Your task to perform on an android device: Open Amazon Image 0: 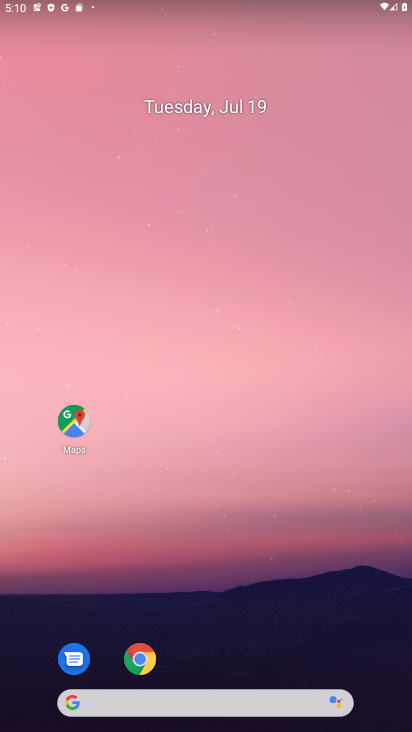
Step 0: drag from (199, 591) to (148, 118)
Your task to perform on an android device: Open Amazon Image 1: 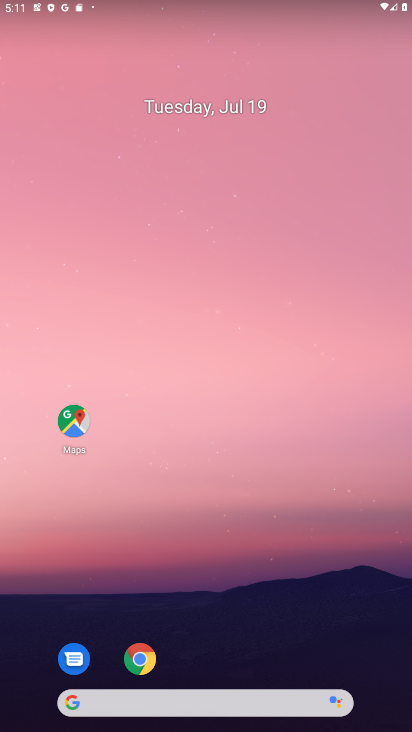
Step 1: drag from (180, 464) to (160, 24)
Your task to perform on an android device: Open Amazon Image 2: 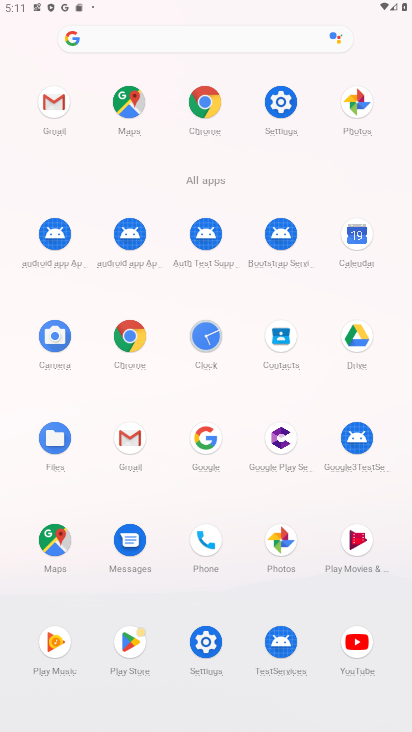
Step 2: click (184, 16)
Your task to perform on an android device: Open Amazon Image 3: 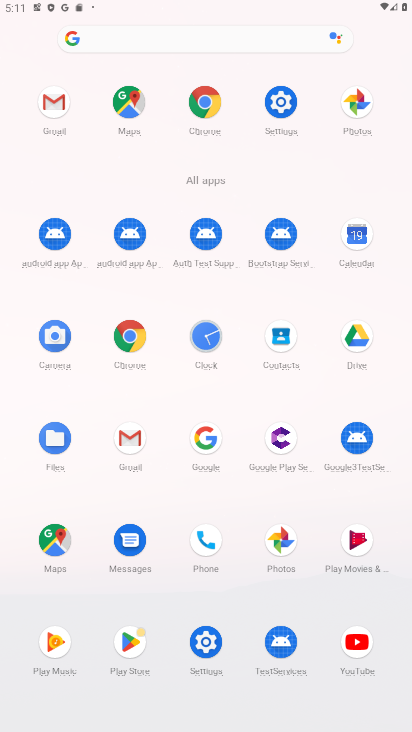
Step 3: drag from (200, 154) to (194, 101)
Your task to perform on an android device: Open Amazon Image 4: 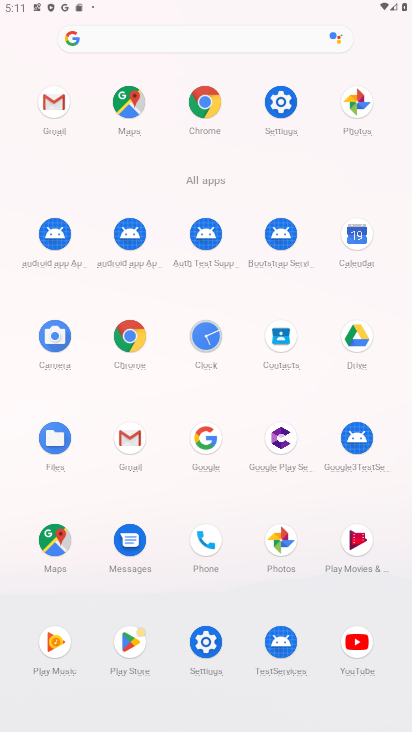
Step 4: click (197, 103)
Your task to perform on an android device: Open Amazon Image 5: 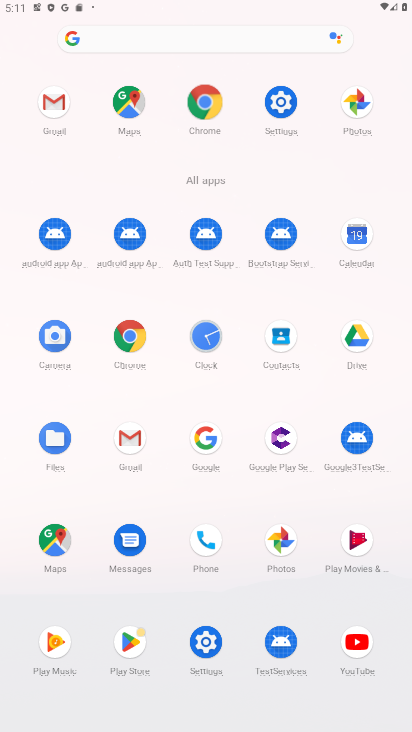
Step 5: click (200, 102)
Your task to perform on an android device: Open Amazon Image 6: 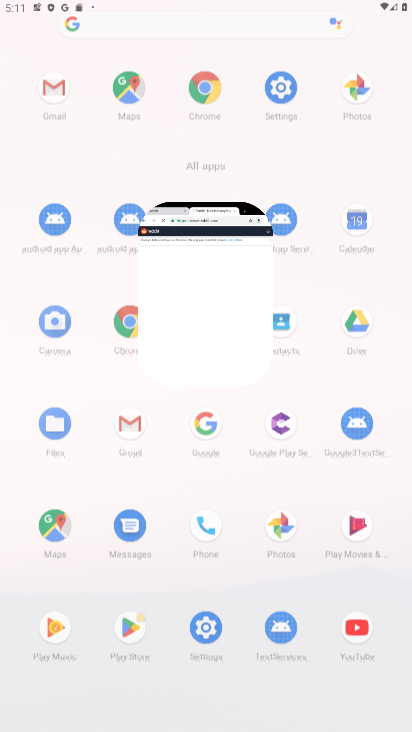
Step 6: click (200, 102)
Your task to perform on an android device: Open Amazon Image 7: 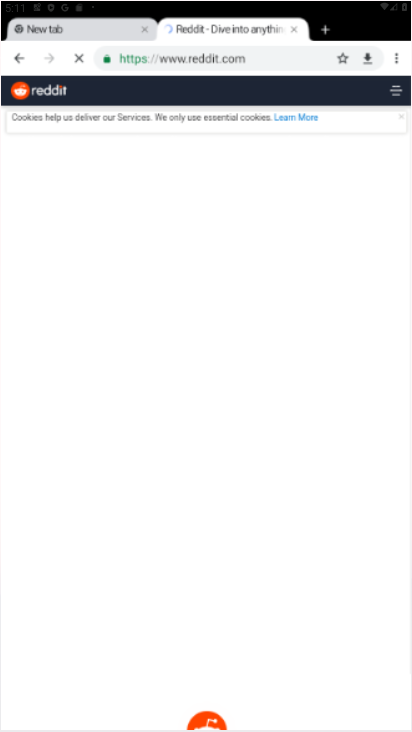
Step 7: click (200, 102)
Your task to perform on an android device: Open Amazon Image 8: 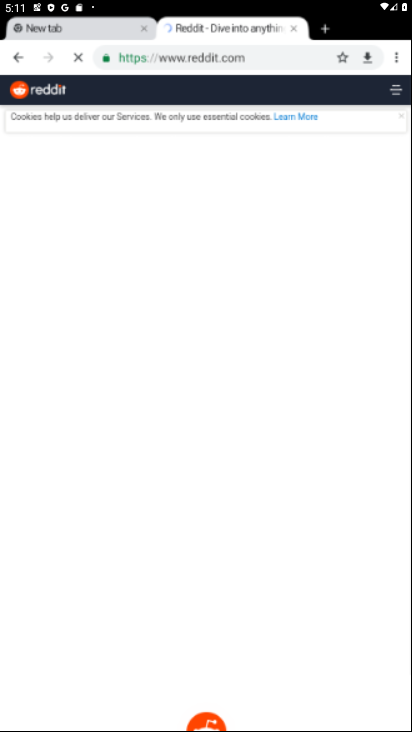
Step 8: click (200, 102)
Your task to perform on an android device: Open Amazon Image 9: 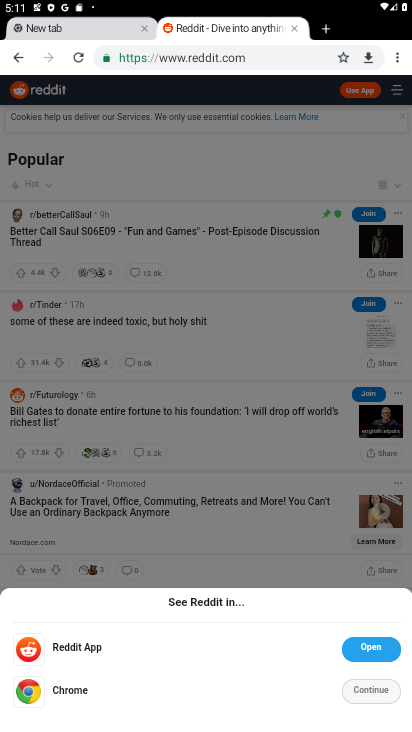
Step 9: drag from (395, 56) to (274, 55)
Your task to perform on an android device: Open Amazon Image 10: 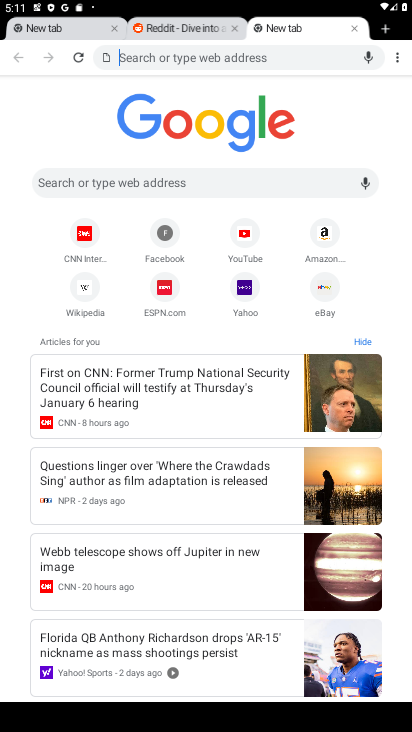
Step 10: click (327, 236)
Your task to perform on an android device: Open Amazon Image 11: 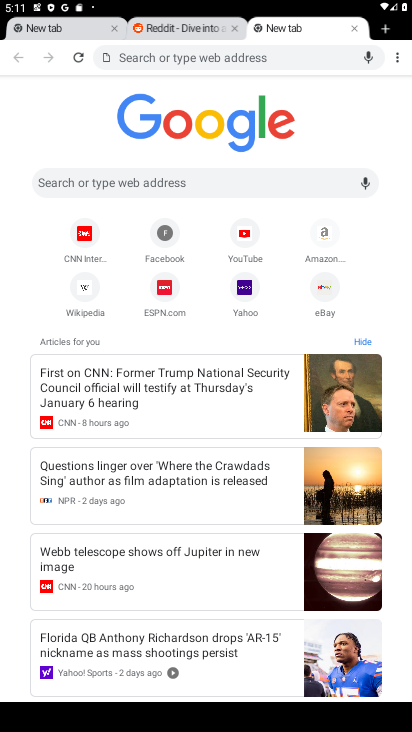
Step 11: click (327, 236)
Your task to perform on an android device: Open Amazon Image 12: 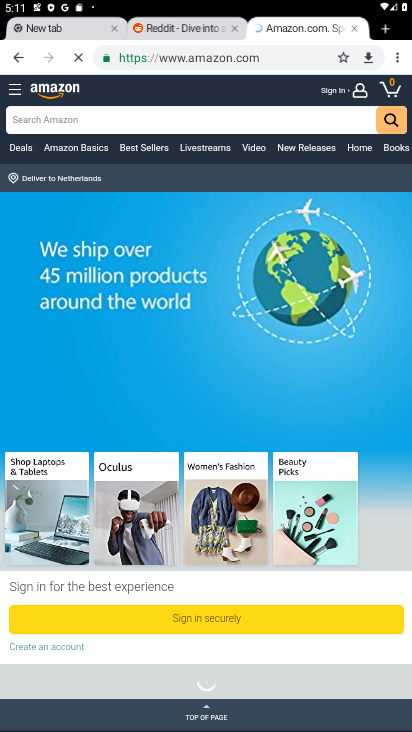
Step 12: task complete